Your task to perform on an android device: Play the last video I watched on Youtube Image 0: 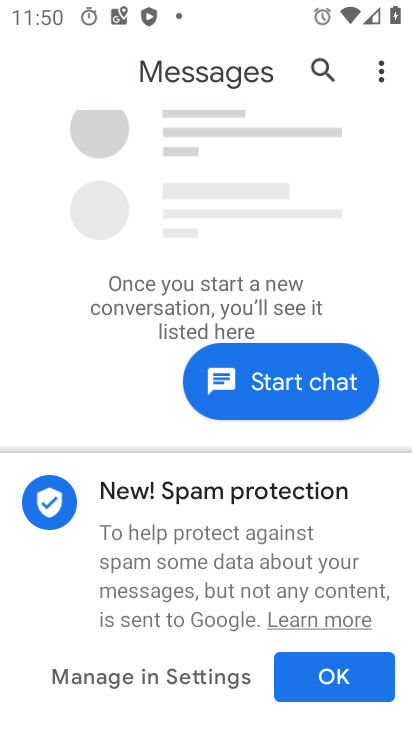
Step 0: press home button
Your task to perform on an android device: Play the last video I watched on Youtube Image 1: 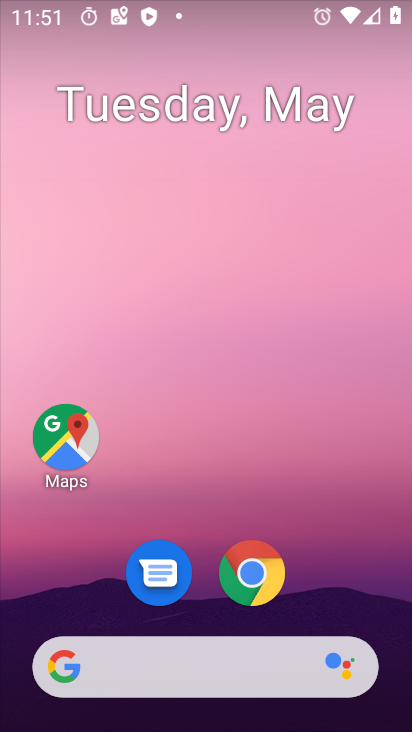
Step 1: drag from (243, 682) to (268, 303)
Your task to perform on an android device: Play the last video I watched on Youtube Image 2: 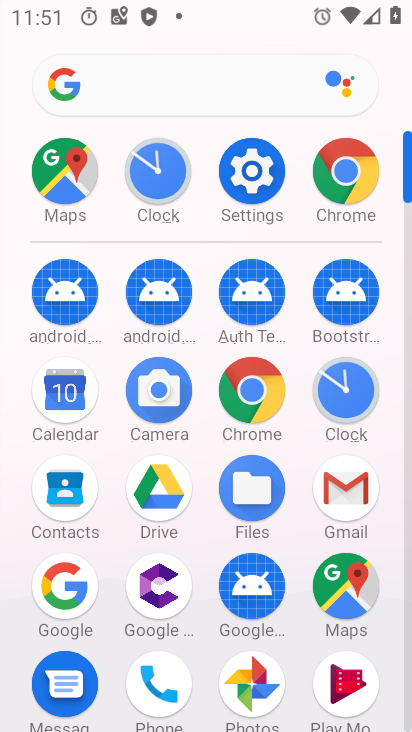
Step 2: click (325, 686)
Your task to perform on an android device: Play the last video I watched on Youtube Image 3: 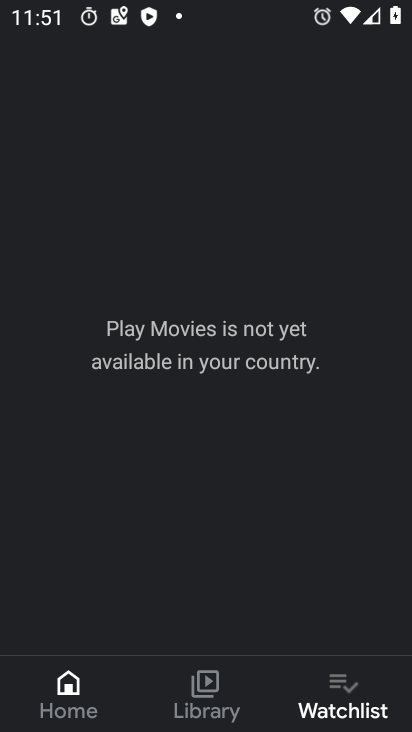
Step 3: task complete